Your task to perform on an android device: search for starred emails in the gmail app Image 0: 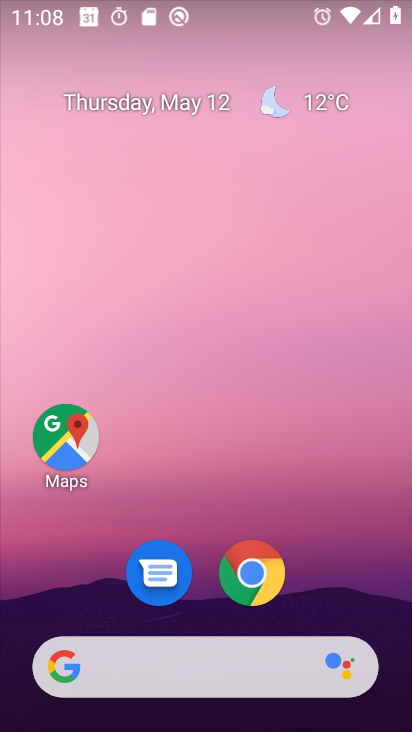
Step 0: drag from (400, 656) to (410, 80)
Your task to perform on an android device: search for starred emails in the gmail app Image 1: 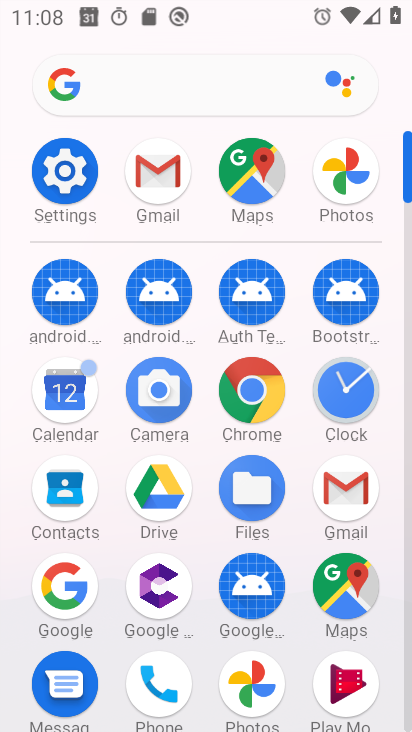
Step 1: click (349, 498)
Your task to perform on an android device: search for starred emails in the gmail app Image 2: 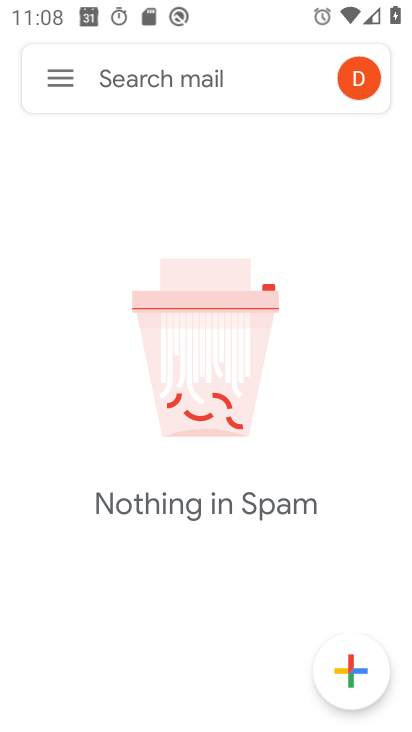
Step 2: click (67, 80)
Your task to perform on an android device: search for starred emails in the gmail app Image 3: 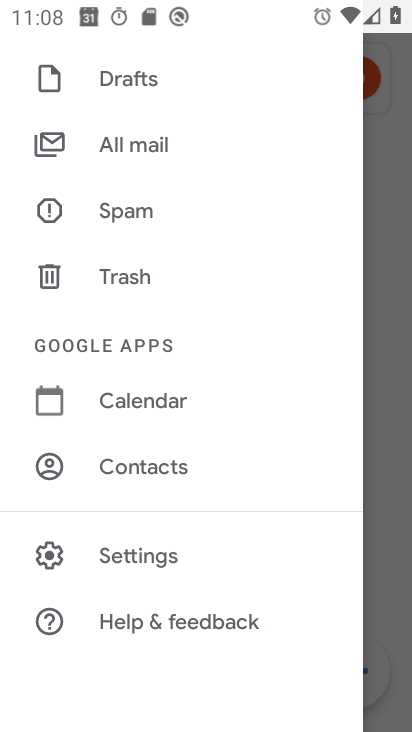
Step 3: drag from (251, 128) to (271, 586)
Your task to perform on an android device: search for starred emails in the gmail app Image 4: 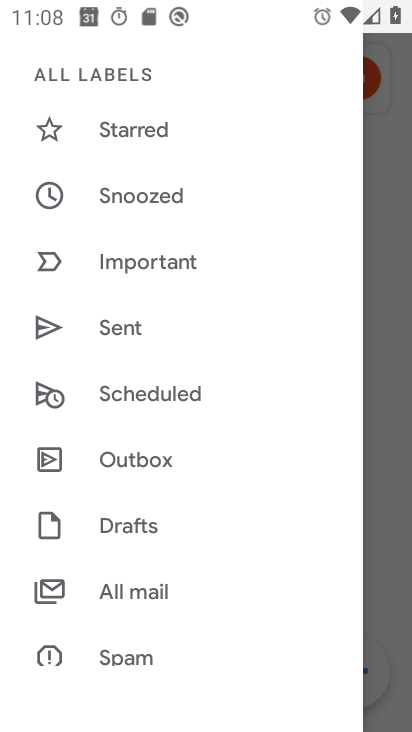
Step 4: click (134, 129)
Your task to perform on an android device: search for starred emails in the gmail app Image 5: 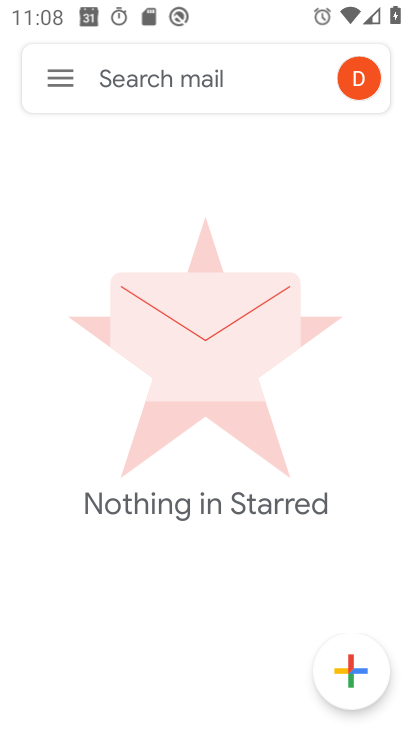
Step 5: task complete